Your task to perform on an android device: Show me popular videos on Youtube Image 0: 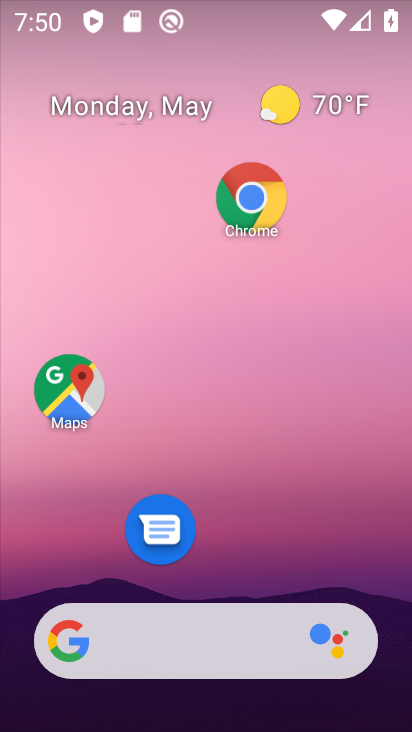
Step 0: drag from (217, 575) to (251, 106)
Your task to perform on an android device: Show me popular videos on Youtube Image 1: 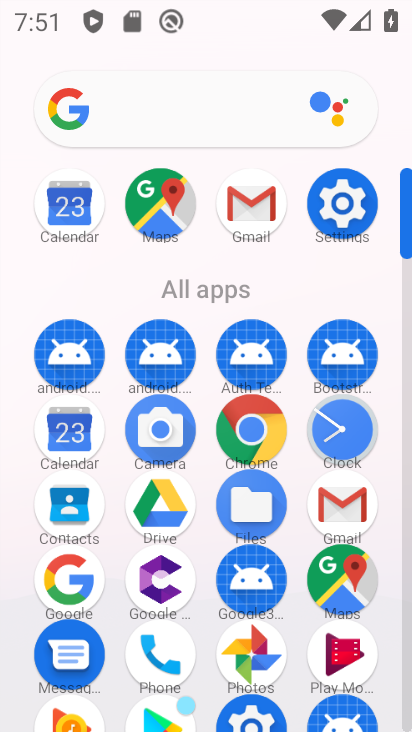
Step 1: drag from (297, 676) to (311, 272)
Your task to perform on an android device: Show me popular videos on Youtube Image 2: 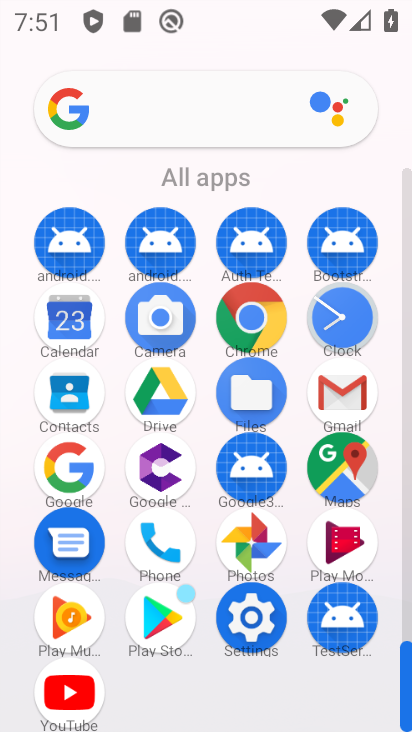
Step 2: click (60, 685)
Your task to perform on an android device: Show me popular videos on Youtube Image 3: 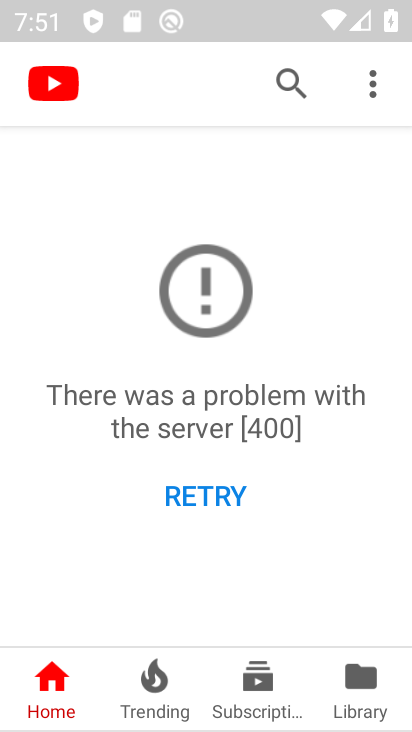
Step 3: click (152, 679)
Your task to perform on an android device: Show me popular videos on Youtube Image 4: 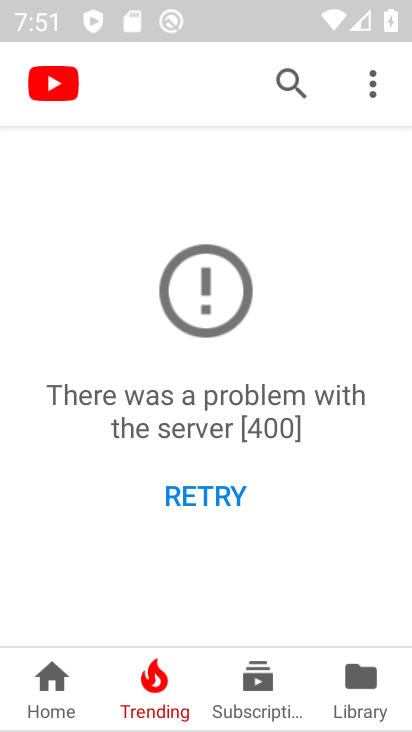
Step 4: task complete